Your task to perform on an android device: choose inbox layout in the gmail app Image 0: 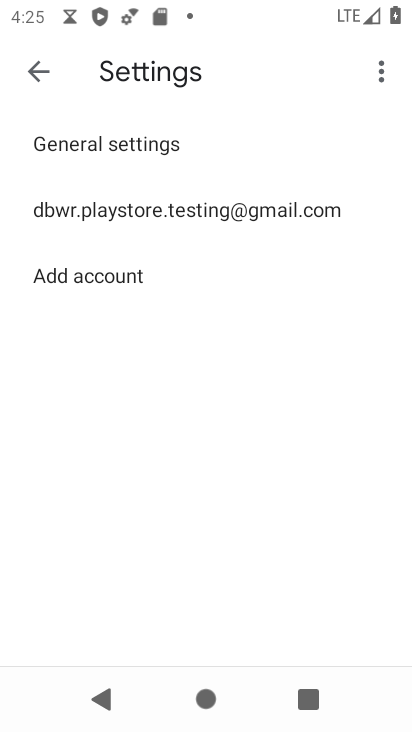
Step 0: press back button
Your task to perform on an android device: choose inbox layout in the gmail app Image 1: 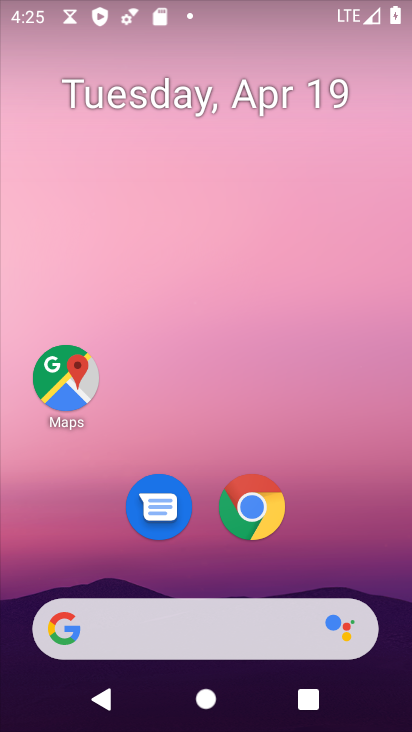
Step 1: drag from (331, 543) to (408, 32)
Your task to perform on an android device: choose inbox layout in the gmail app Image 2: 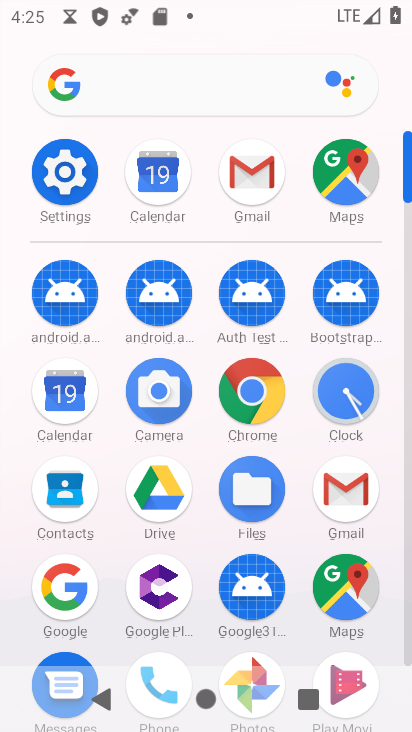
Step 2: click (347, 479)
Your task to perform on an android device: choose inbox layout in the gmail app Image 3: 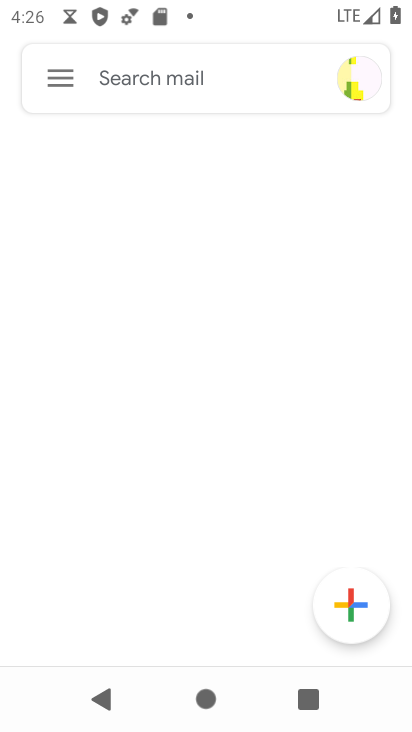
Step 3: click (63, 75)
Your task to perform on an android device: choose inbox layout in the gmail app Image 4: 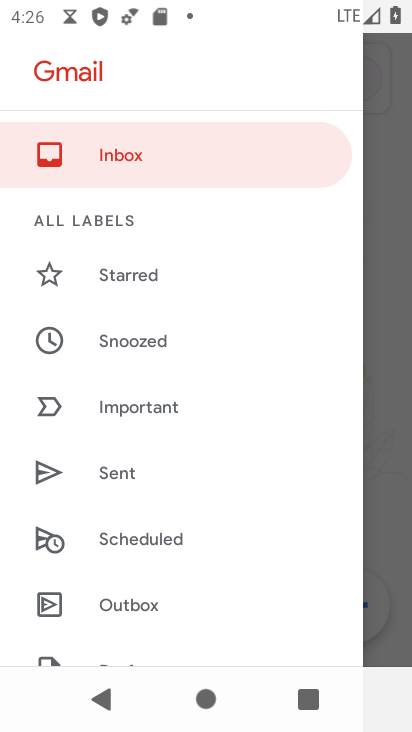
Step 4: drag from (188, 594) to (222, 374)
Your task to perform on an android device: choose inbox layout in the gmail app Image 5: 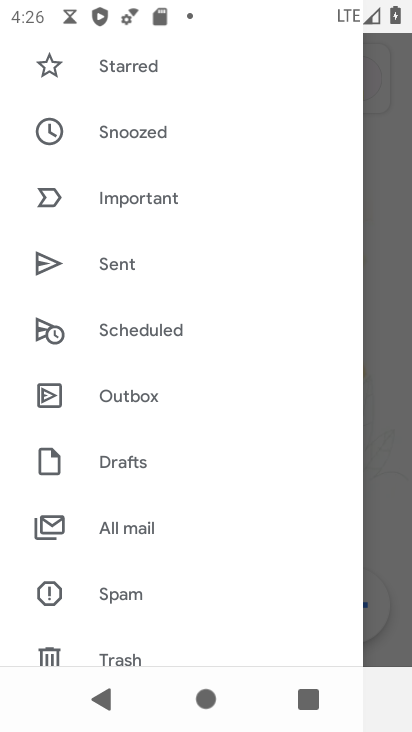
Step 5: drag from (199, 628) to (219, 453)
Your task to perform on an android device: choose inbox layout in the gmail app Image 6: 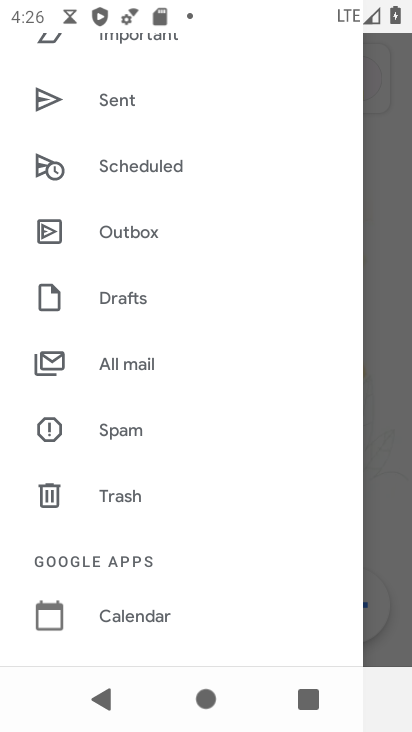
Step 6: drag from (223, 586) to (311, 424)
Your task to perform on an android device: choose inbox layout in the gmail app Image 7: 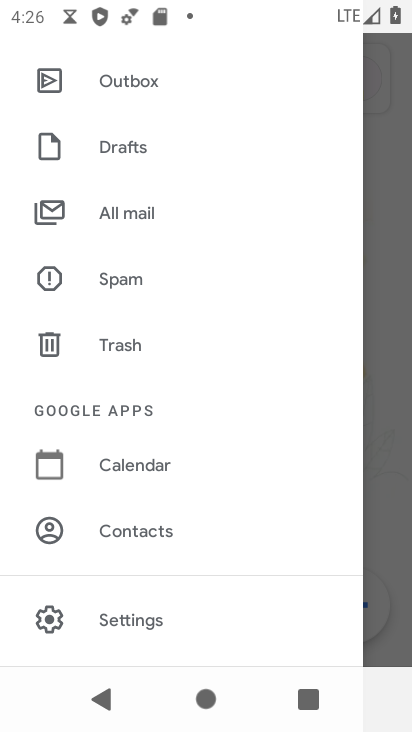
Step 7: click (188, 620)
Your task to perform on an android device: choose inbox layout in the gmail app Image 8: 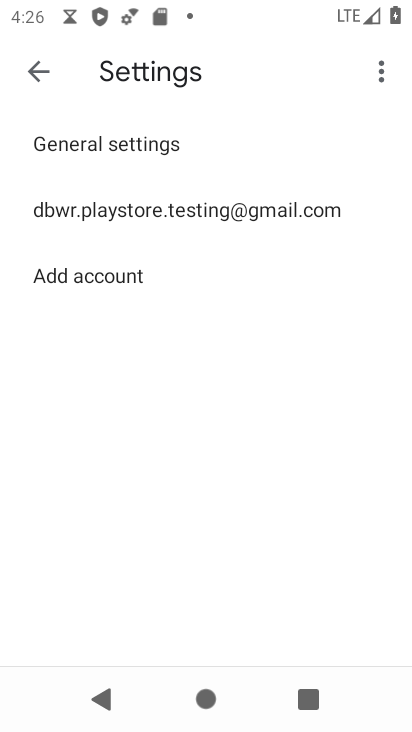
Step 8: click (326, 214)
Your task to perform on an android device: choose inbox layout in the gmail app Image 9: 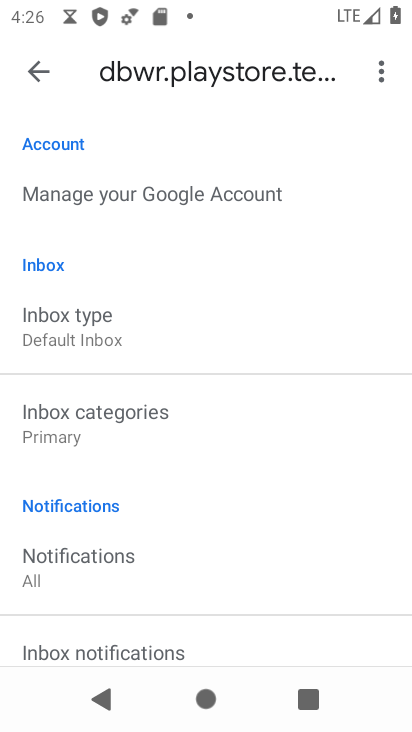
Step 9: click (52, 322)
Your task to perform on an android device: choose inbox layout in the gmail app Image 10: 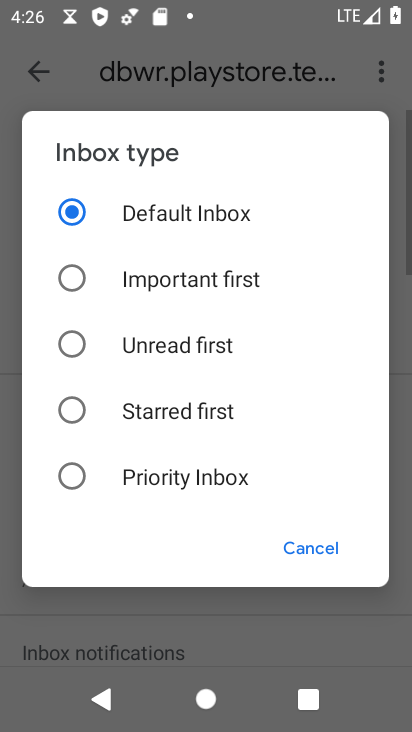
Step 10: click (126, 267)
Your task to perform on an android device: choose inbox layout in the gmail app Image 11: 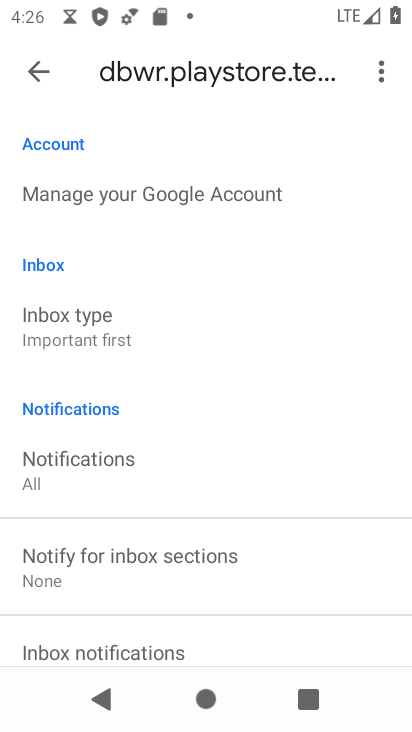
Step 11: task complete